Your task to perform on an android device: What's the weather going to be this weekend? Image 0: 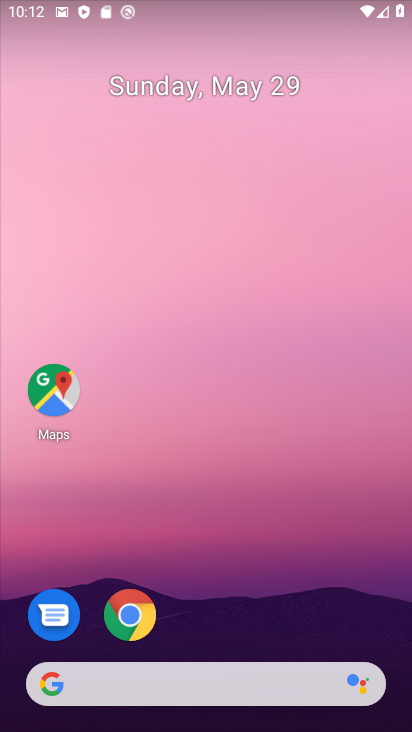
Step 0: click (196, 684)
Your task to perform on an android device: What's the weather going to be this weekend? Image 1: 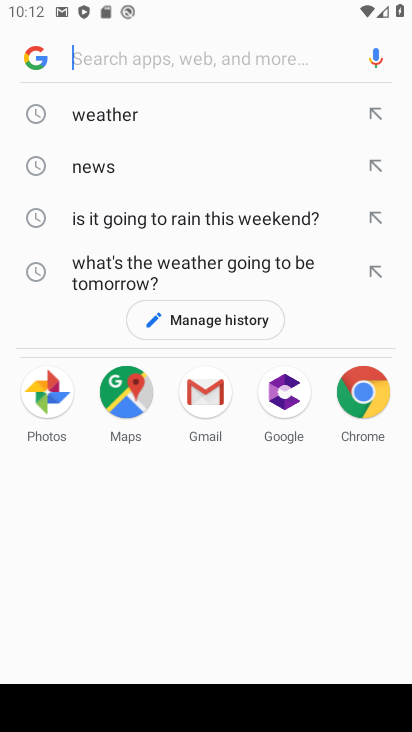
Step 1: click (135, 126)
Your task to perform on an android device: What's the weather going to be this weekend? Image 2: 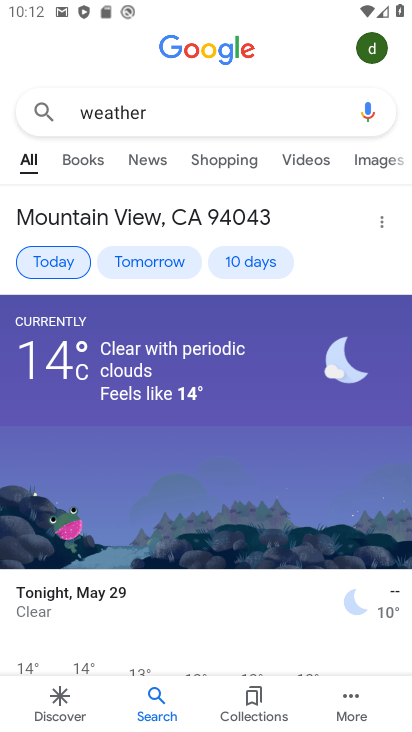
Step 2: click (245, 260)
Your task to perform on an android device: What's the weather going to be this weekend? Image 3: 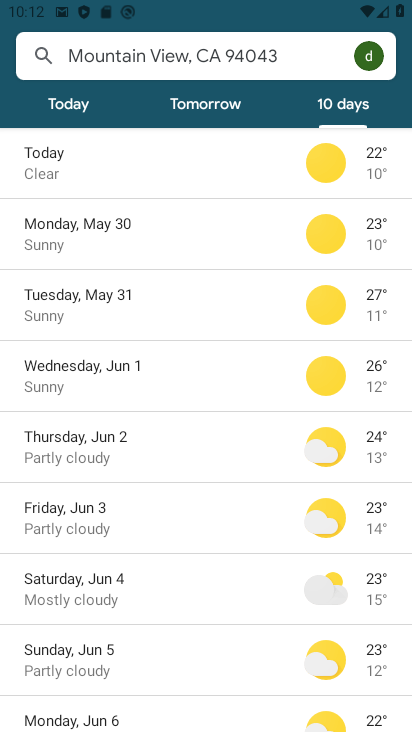
Step 3: drag from (213, 466) to (220, 275)
Your task to perform on an android device: What's the weather going to be this weekend? Image 4: 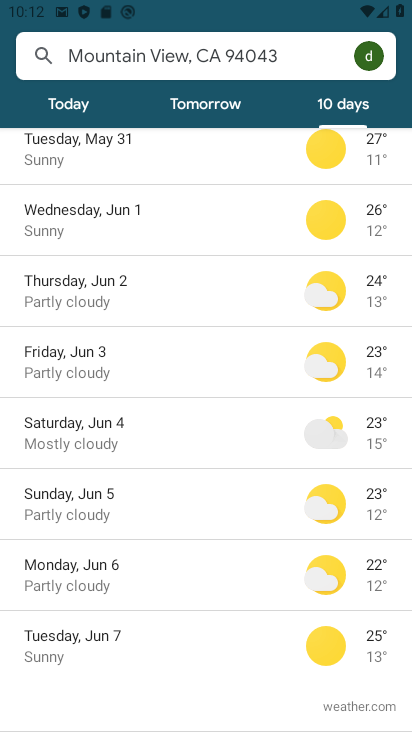
Step 4: click (178, 424)
Your task to perform on an android device: What's the weather going to be this weekend? Image 5: 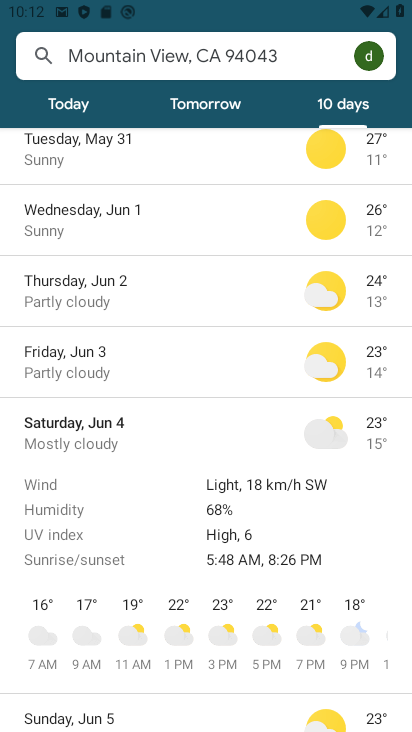
Step 5: task complete